Your task to perform on an android device: Go to internet settings Image 0: 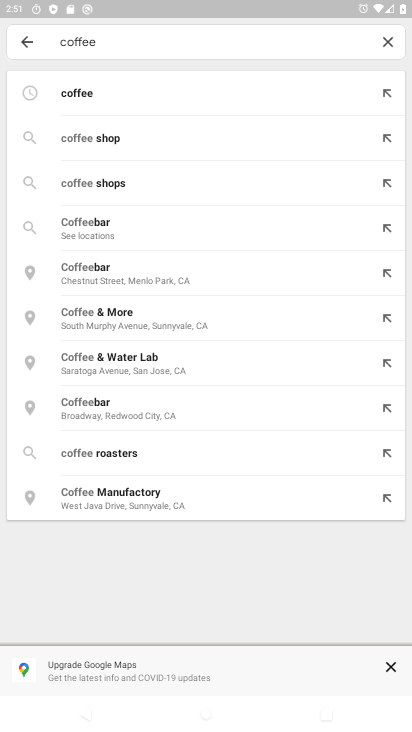
Step 0: press home button
Your task to perform on an android device: Go to internet settings Image 1: 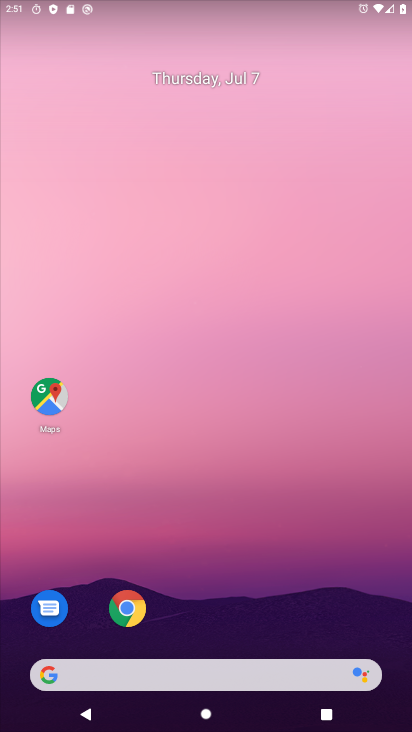
Step 1: drag from (238, 709) to (236, 621)
Your task to perform on an android device: Go to internet settings Image 2: 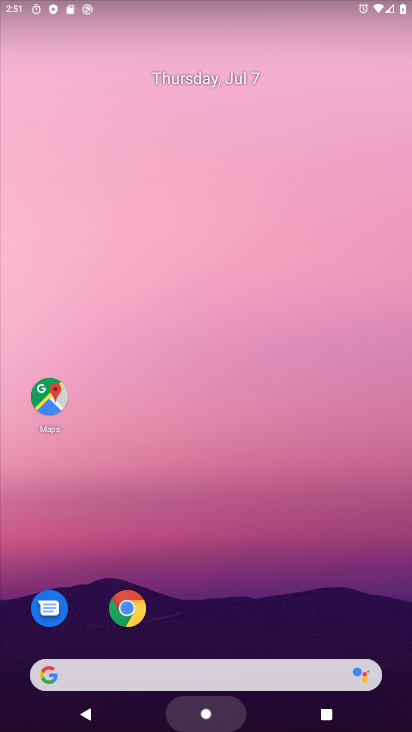
Step 2: click (226, 155)
Your task to perform on an android device: Go to internet settings Image 3: 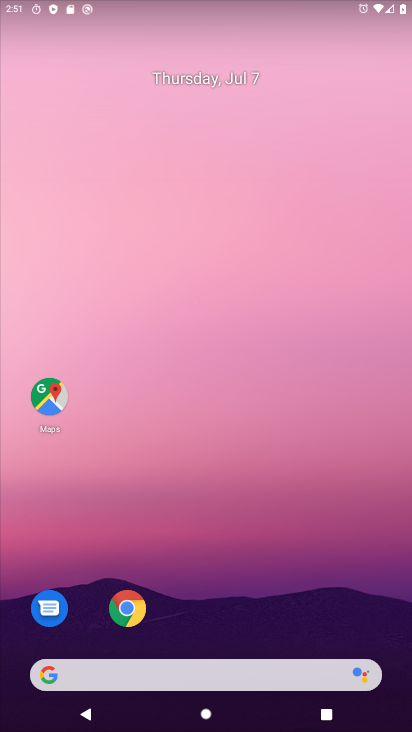
Step 3: drag from (264, 724) to (257, 156)
Your task to perform on an android device: Go to internet settings Image 4: 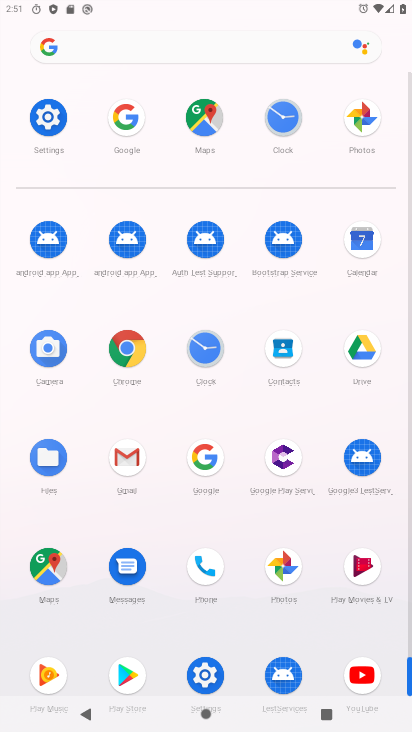
Step 4: click (45, 117)
Your task to perform on an android device: Go to internet settings Image 5: 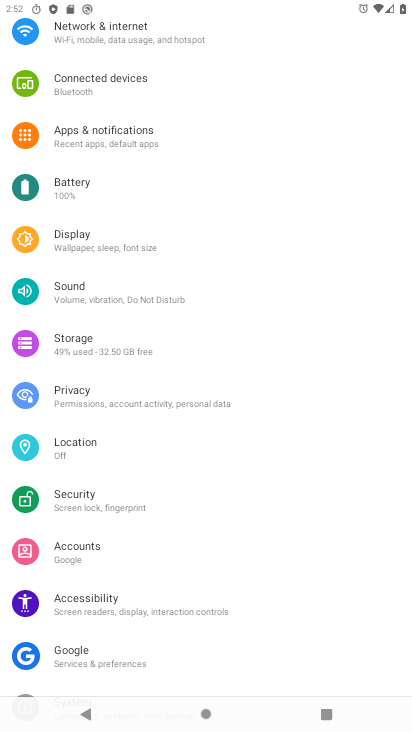
Step 5: click (92, 35)
Your task to perform on an android device: Go to internet settings Image 6: 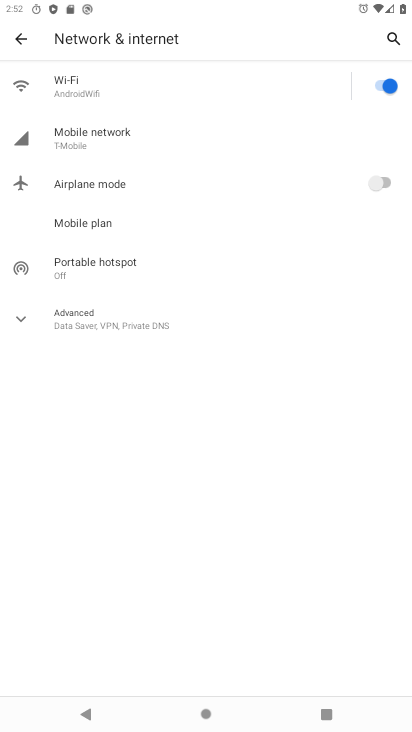
Step 6: task complete